Your task to perform on an android device: Open ESPN.com Image 0: 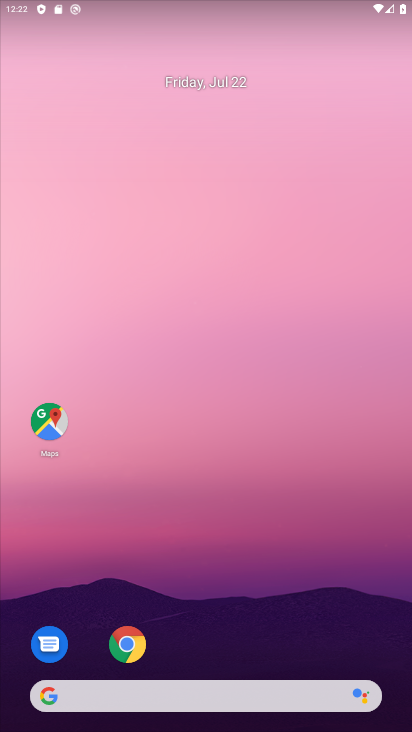
Step 0: click (132, 693)
Your task to perform on an android device: Open ESPN.com Image 1: 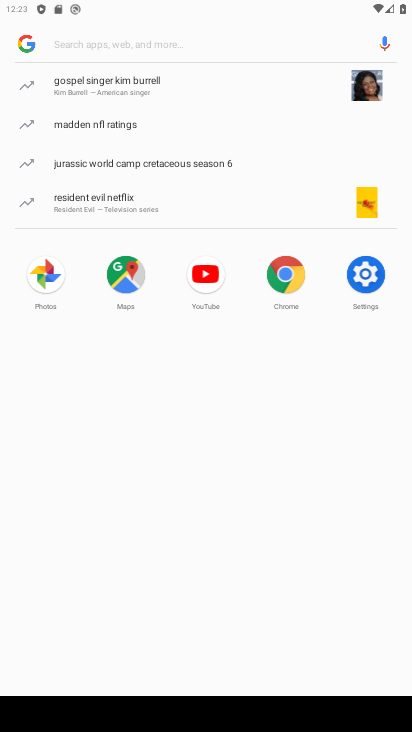
Step 1: type "espn"
Your task to perform on an android device: Open ESPN.com Image 2: 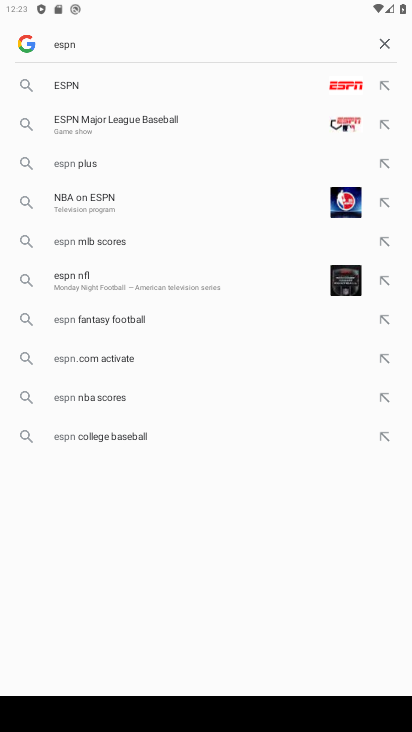
Step 2: click (324, 92)
Your task to perform on an android device: Open ESPN.com Image 3: 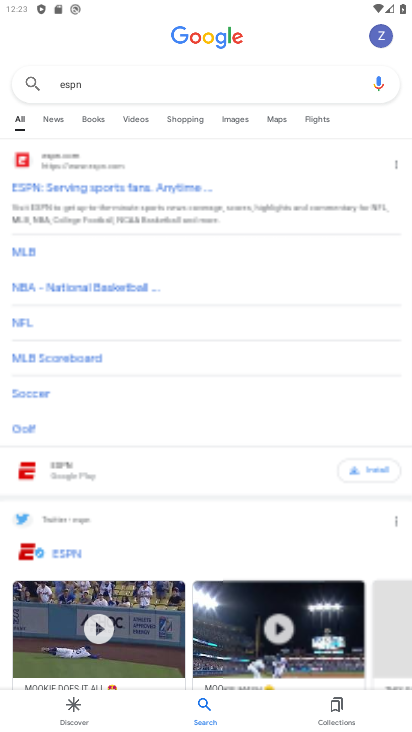
Step 3: task complete